Your task to perform on an android device: toggle data saver in the chrome app Image 0: 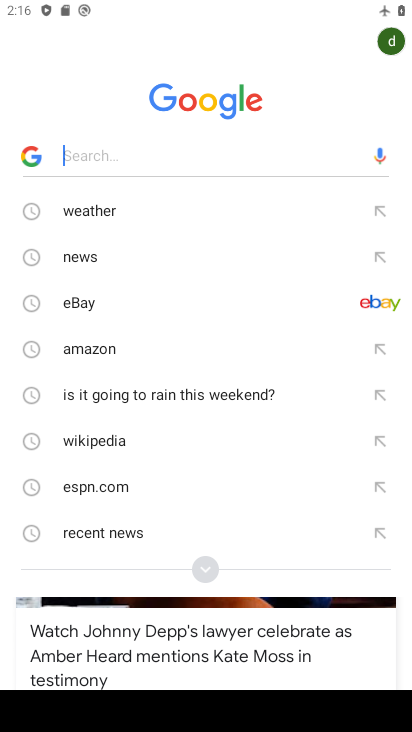
Step 0: press home button
Your task to perform on an android device: toggle data saver in the chrome app Image 1: 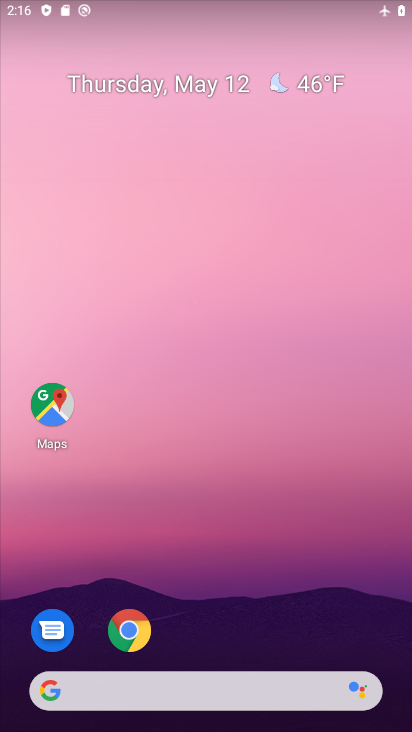
Step 1: click (142, 637)
Your task to perform on an android device: toggle data saver in the chrome app Image 2: 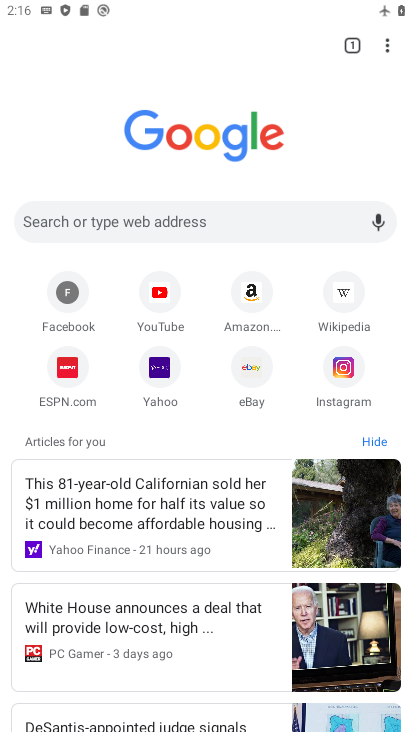
Step 2: click (390, 51)
Your task to perform on an android device: toggle data saver in the chrome app Image 3: 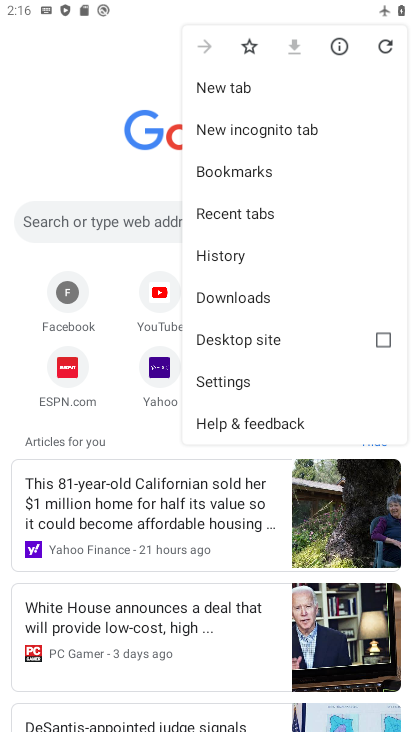
Step 3: click (225, 380)
Your task to perform on an android device: toggle data saver in the chrome app Image 4: 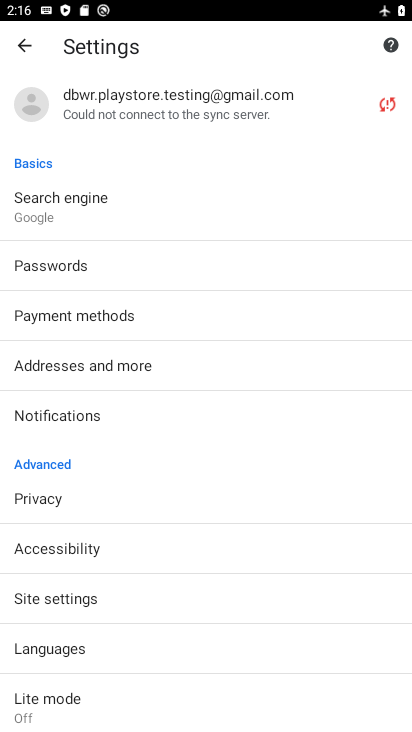
Step 4: click (74, 698)
Your task to perform on an android device: toggle data saver in the chrome app Image 5: 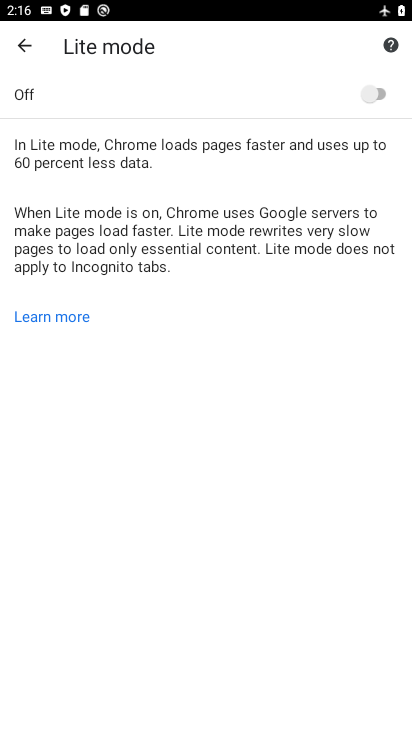
Step 5: click (389, 97)
Your task to perform on an android device: toggle data saver in the chrome app Image 6: 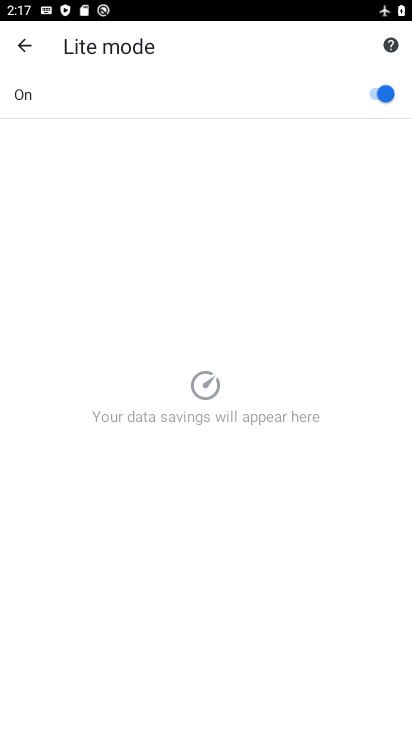
Step 6: task complete